Your task to perform on an android device: Go to settings Image 0: 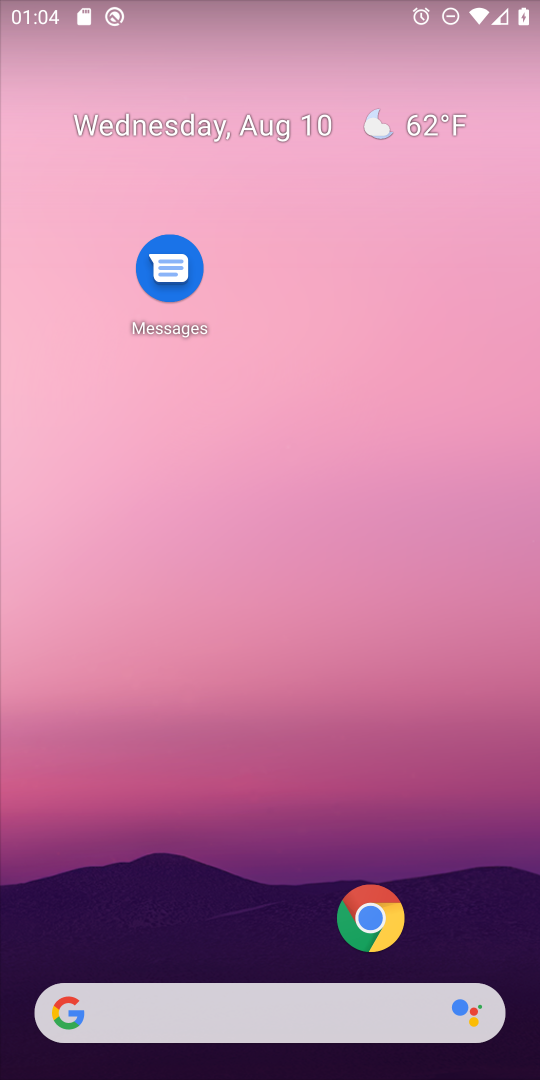
Step 0: drag from (290, 911) to (396, 119)
Your task to perform on an android device: Go to settings Image 1: 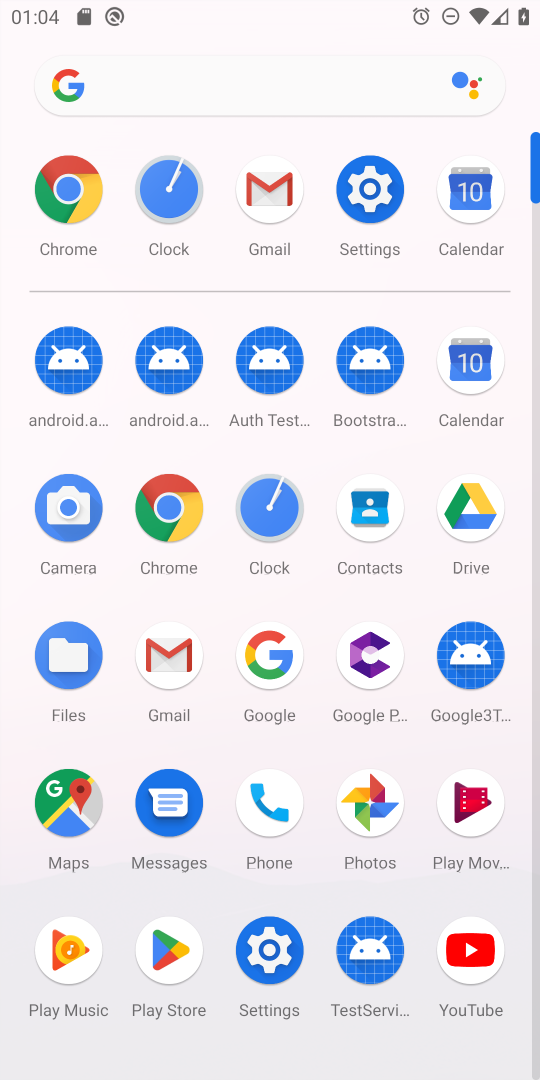
Step 1: click (261, 944)
Your task to perform on an android device: Go to settings Image 2: 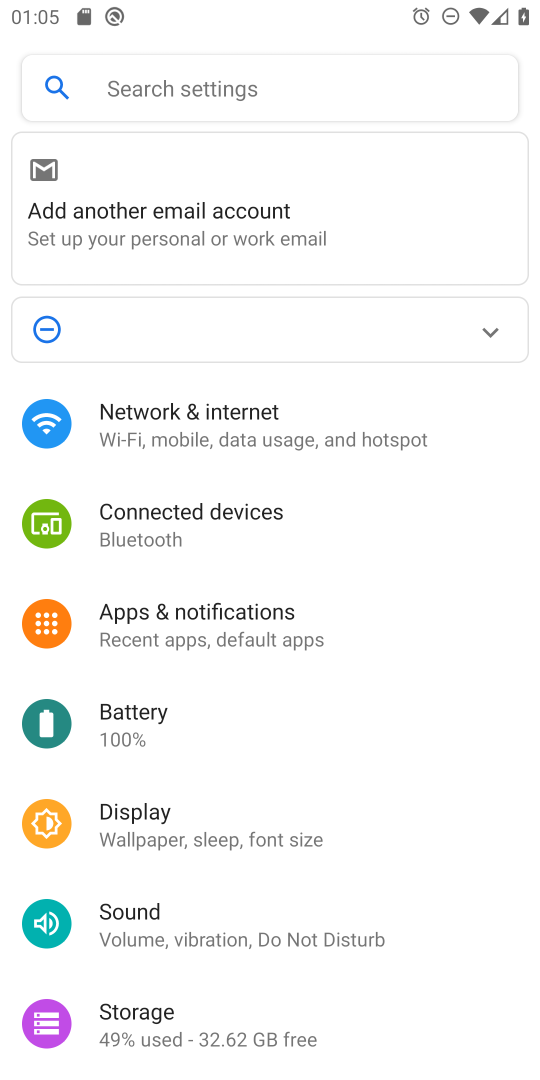
Step 2: task complete